Your task to perform on an android device: install app "DuckDuckGo Privacy Browser" Image 0: 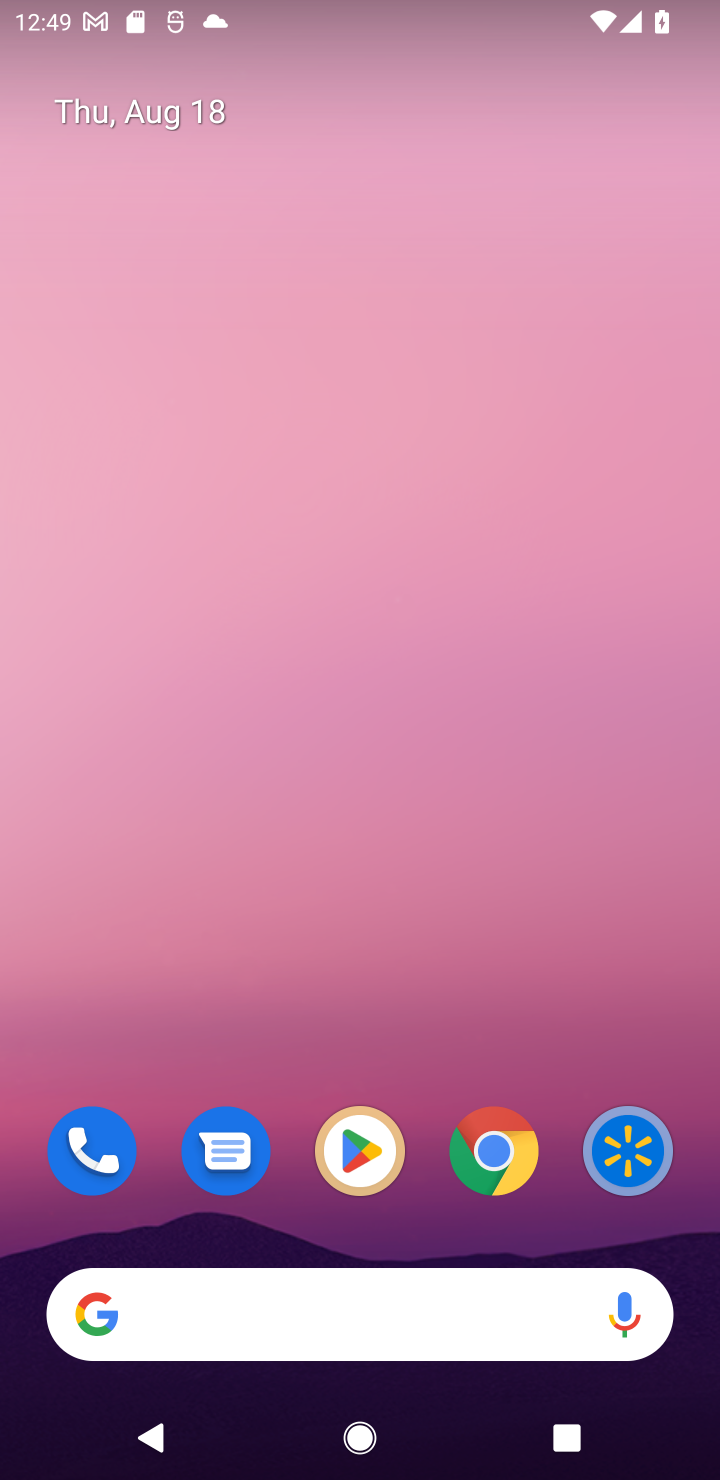
Step 0: click (340, 1152)
Your task to perform on an android device: install app "DuckDuckGo Privacy Browser" Image 1: 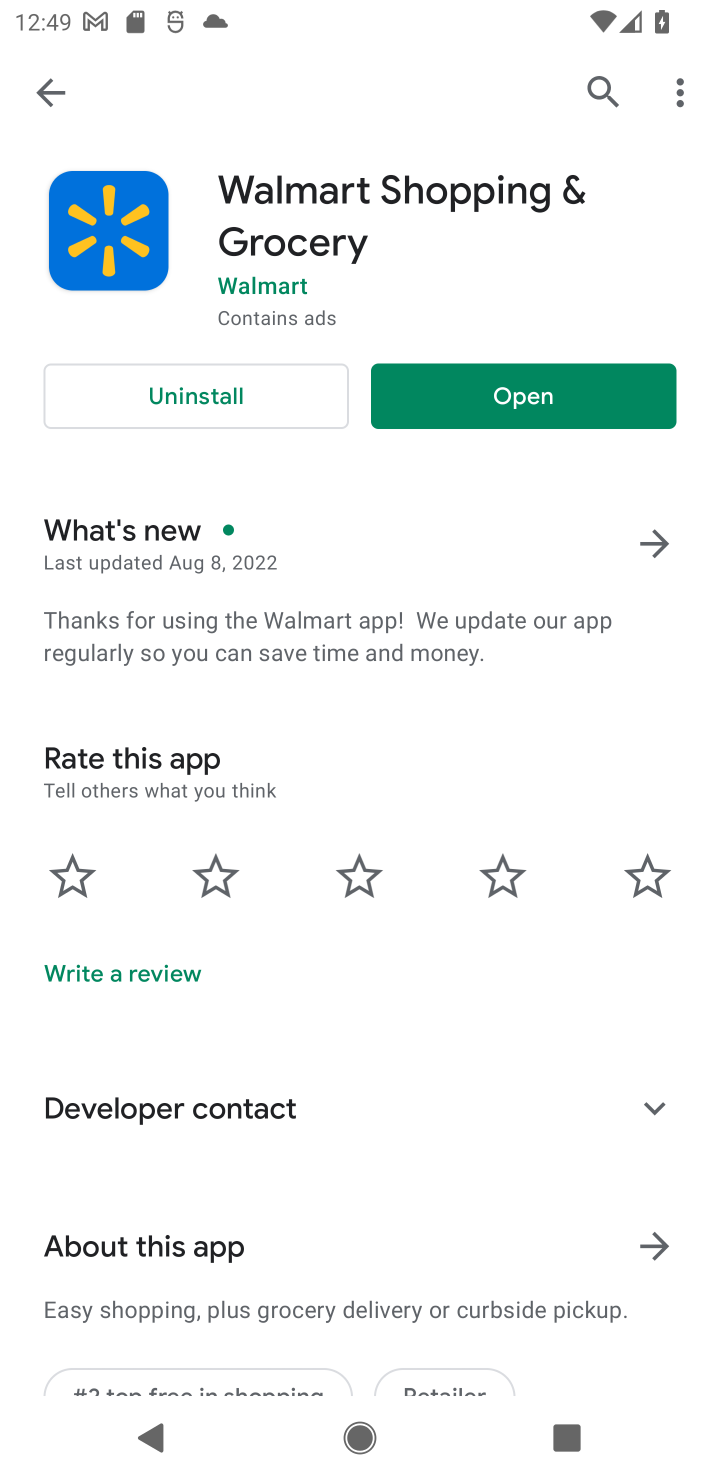
Step 1: task complete